Your task to perform on an android device: Go to Google maps Image 0: 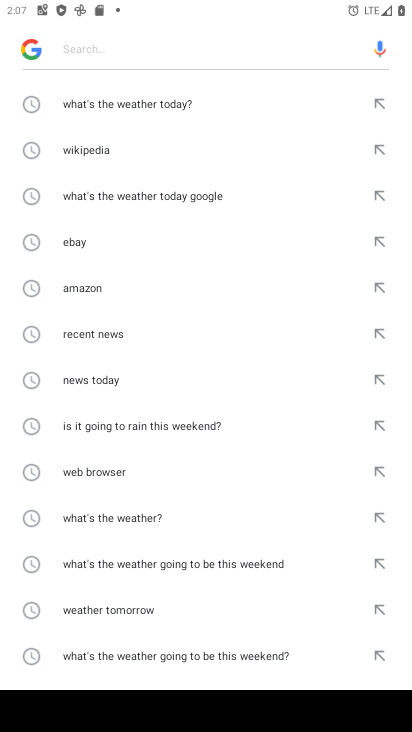
Step 0: press home button
Your task to perform on an android device: Go to Google maps Image 1: 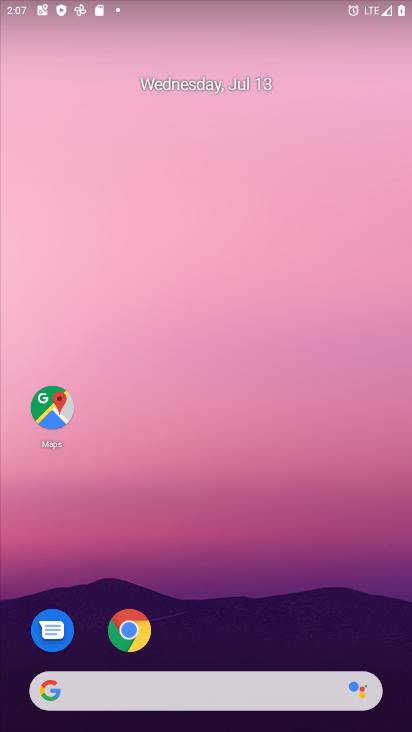
Step 1: drag from (399, 662) to (229, 0)
Your task to perform on an android device: Go to Google maps Image 2: 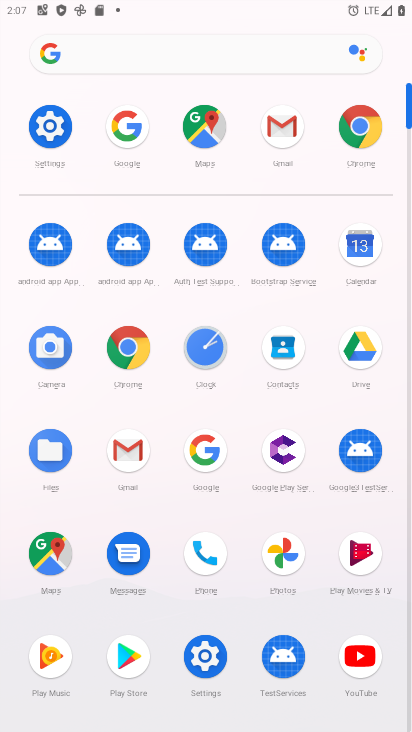
Step 2: click (61, 575)
Your task to perform on an android device: Go to Google maps Image 3: 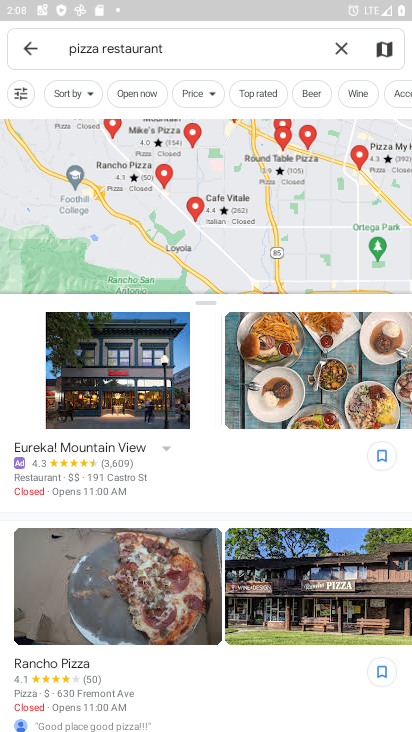
Step 3: click (340, 55)
Your task to perform on an android device: Go to Google maps Image 4: 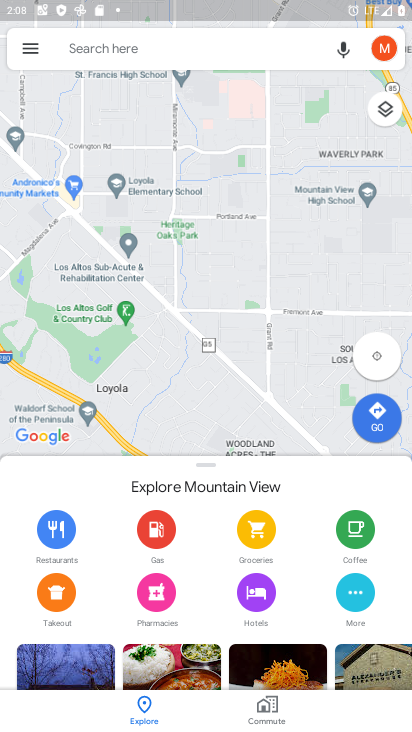
Step 4: task complete